Your task to perform on an android device: Find coffee shops on Maps Image 0: 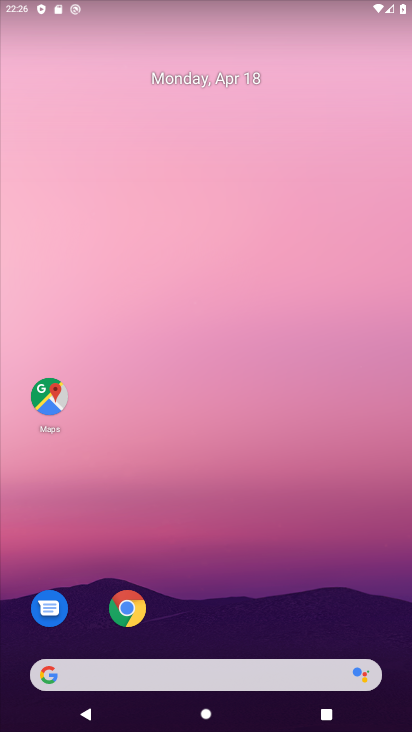
Step 0: click (50, 396)
Your task to perform on an android device: Find coffee shops on Maps Image 1: 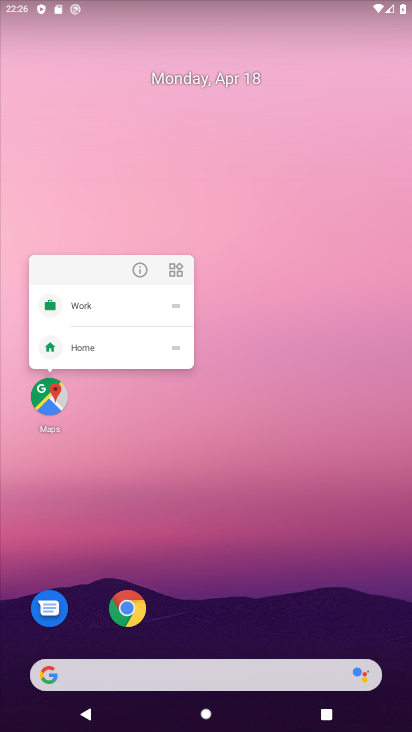
Step 1: click (51, 390)
Your task to perform on an android device: Find coffee shops on Maps Image 2: 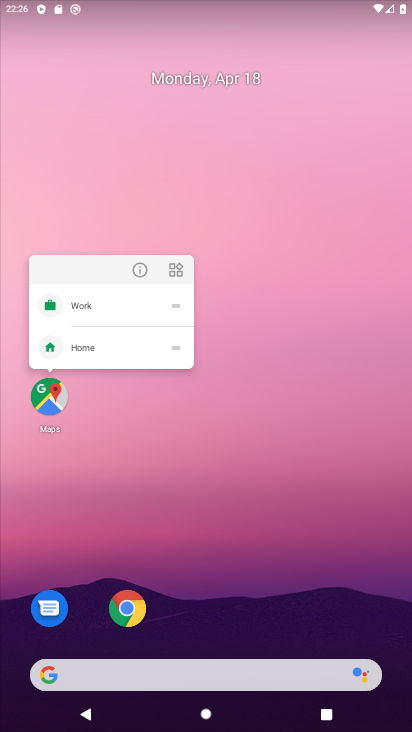
Step 2: click (43, 404)
Your task to perform on an android device: Find coffee shops on Maps Image 3: 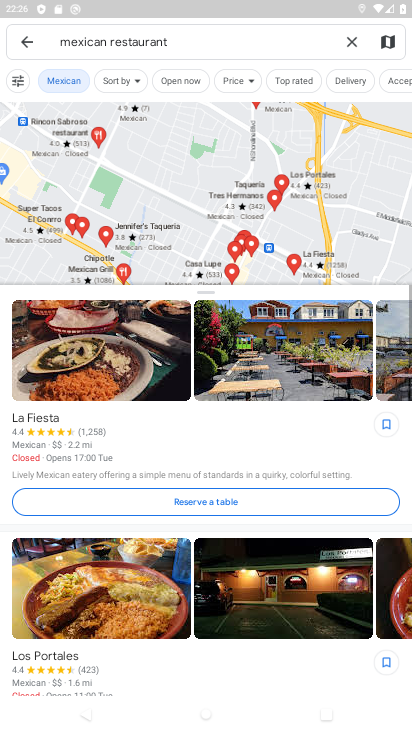
Step 3: click (353, 40)
Your task to perform on an android device: Find coffee shops on Maps Image 4: 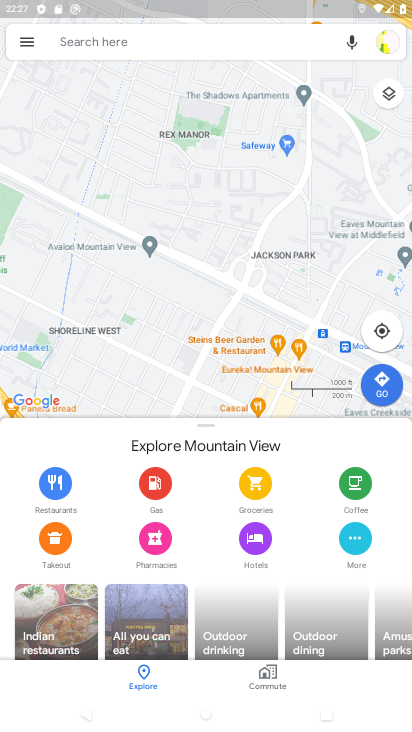
Step 4: click (210, 49)
Your task to perform on an android device: Find coffee shops on Maps Image 5: 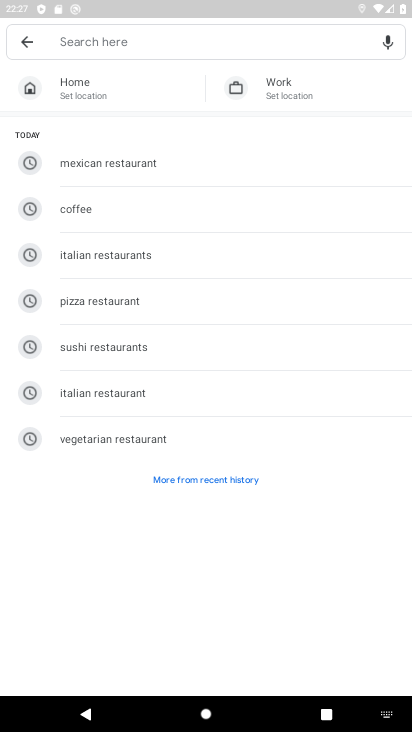
Step 5: click (112, 221)
Your task to perform on an android device: Find coffee shops on Maps Image 6: 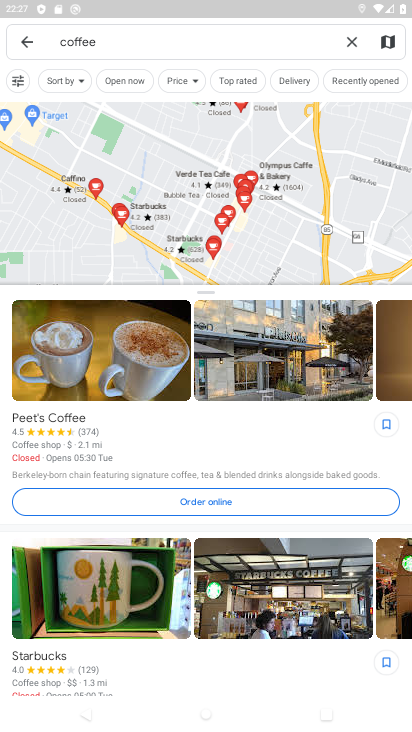
Step 6: task complete